Your task to perform on an android device: Open the map Image 0: 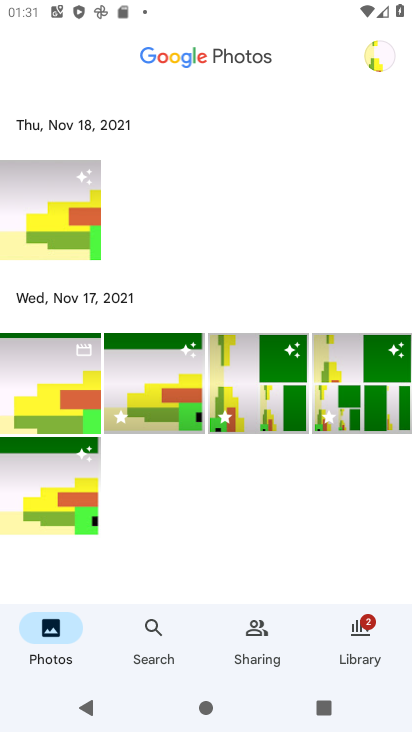
Step 0: press home button
Your task to perform on an android device: Open the map Image 1: 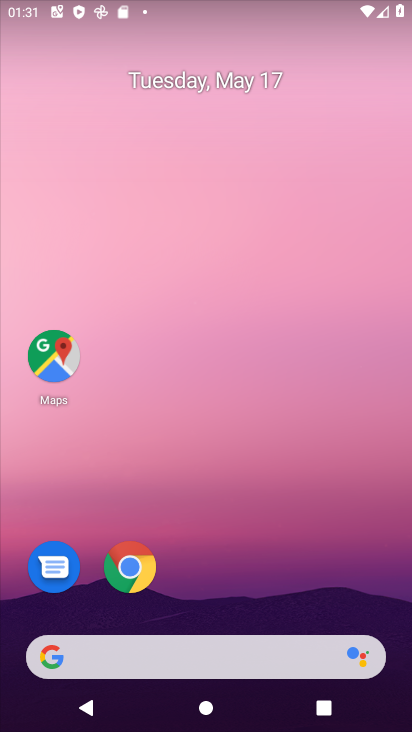
Step 1: click (54, 356)
Your task to perform on an android device: Open the map Image 2: 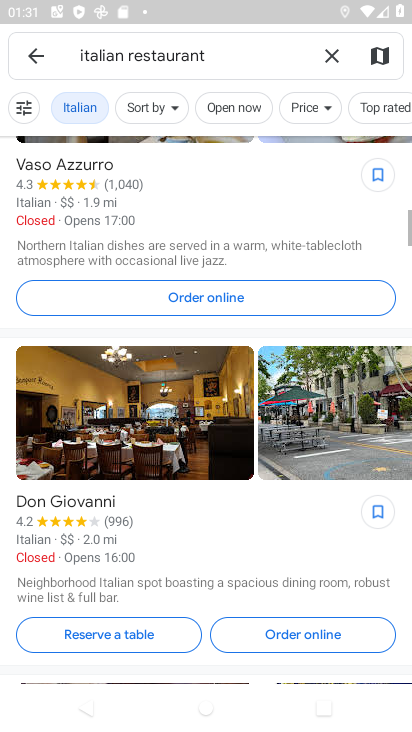
Step 2: click (334, 54)
Your task to perform on an android device: Open the map Image 3: 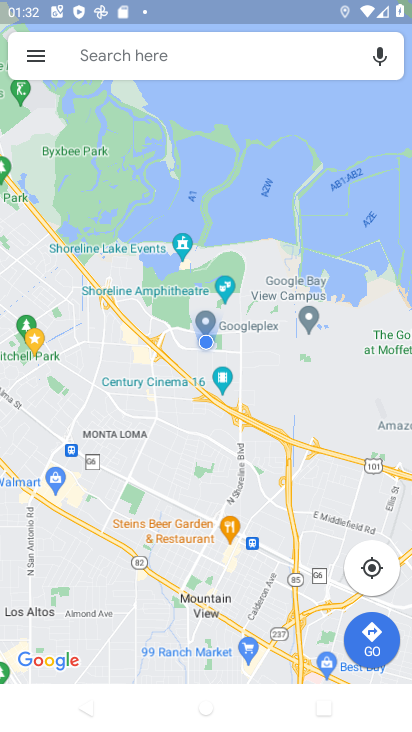
Step 3: task complete